Your task to perform on an android device: open sync settings in chrome Image 0: 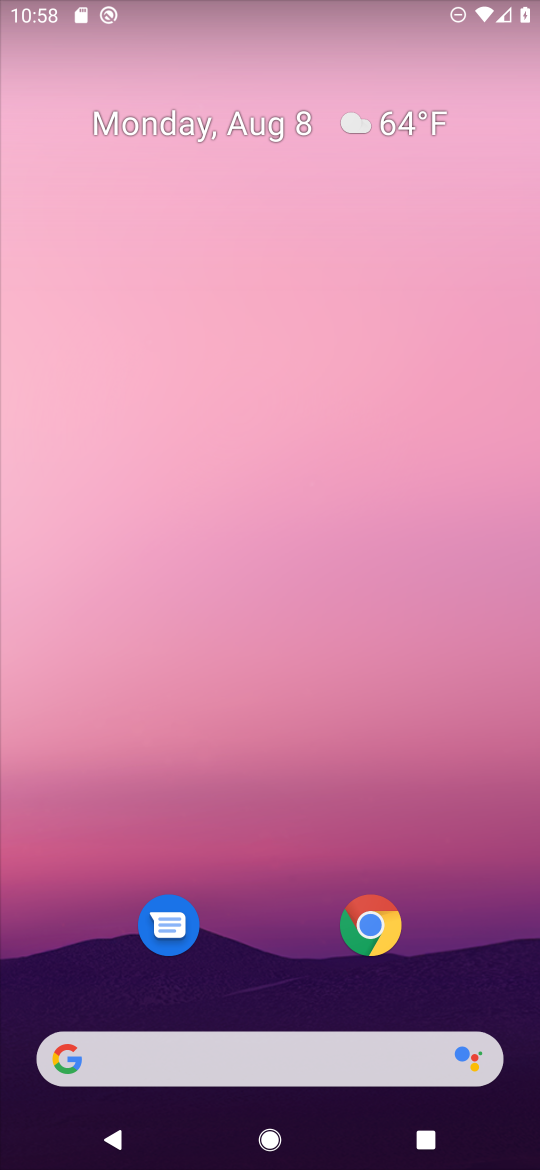
Step 0: drag from (260, 797) to (296, 144)
Your task to perform on an android device: open sync settings in chrome Image 1: 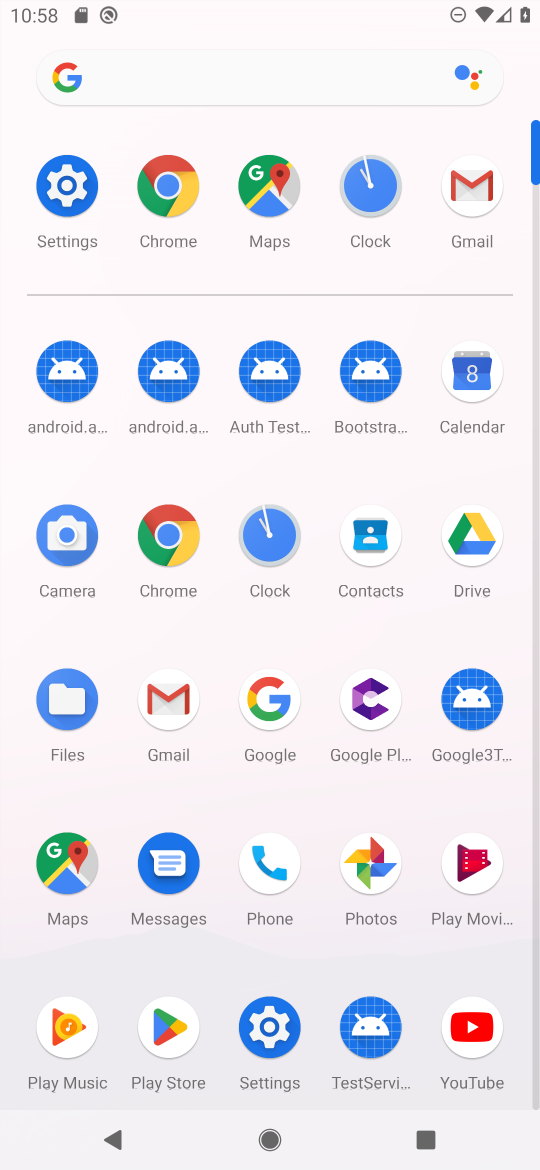
Step 1: click (164, 531)
Your task to perform on an android device: open sync settings in chrome Image 2: 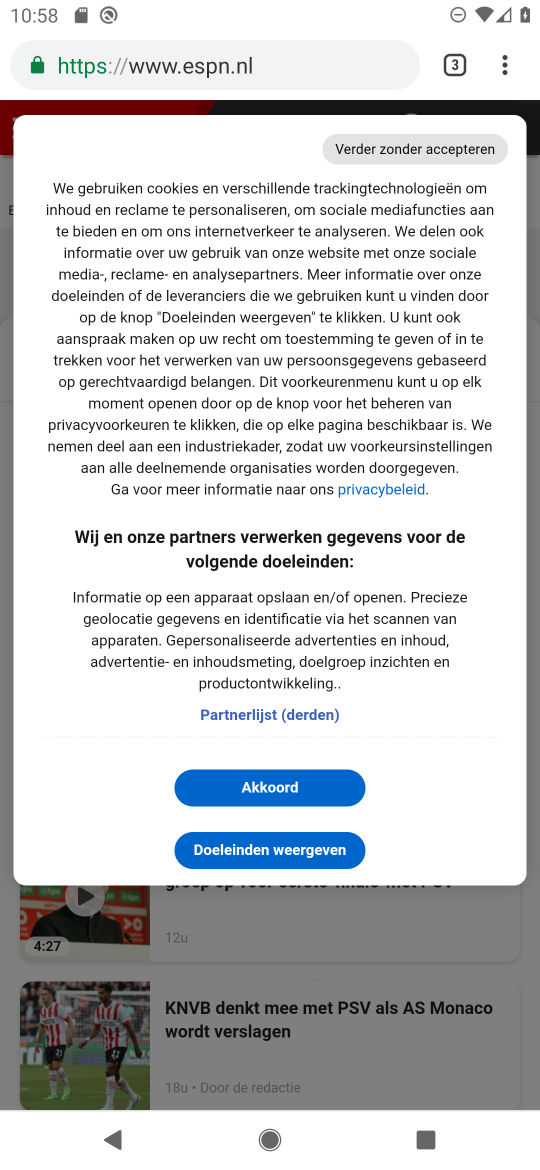
Step 2: drag from (521, 56) to (266, 865)
Your task to perform on an android device: open sync settings in chrome Image 3: 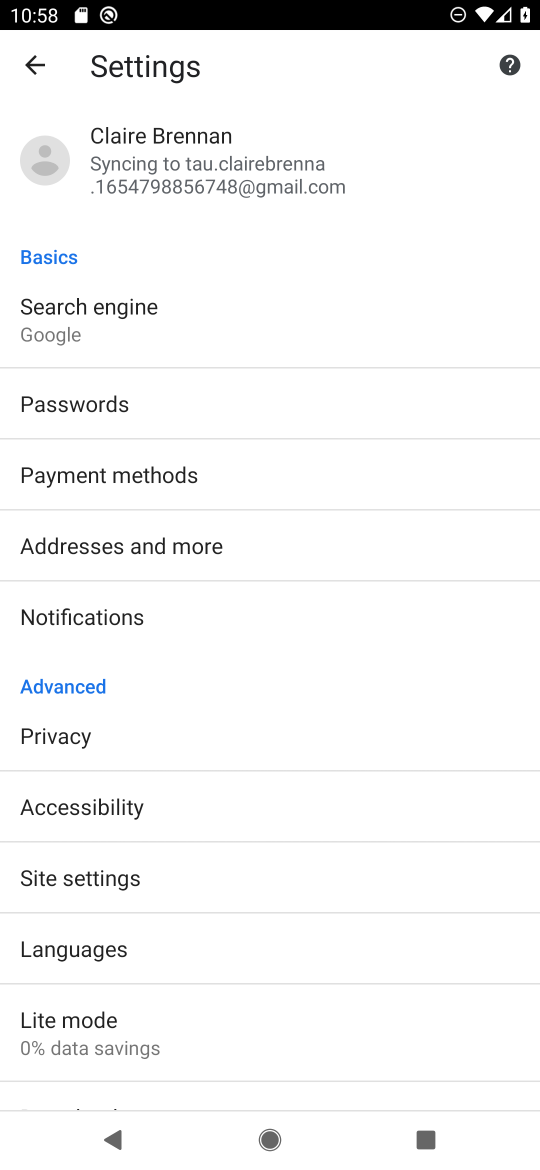
Step 3: click (193, 193)
Your task to perform on an android device: open sync settings in chrome Image 4: 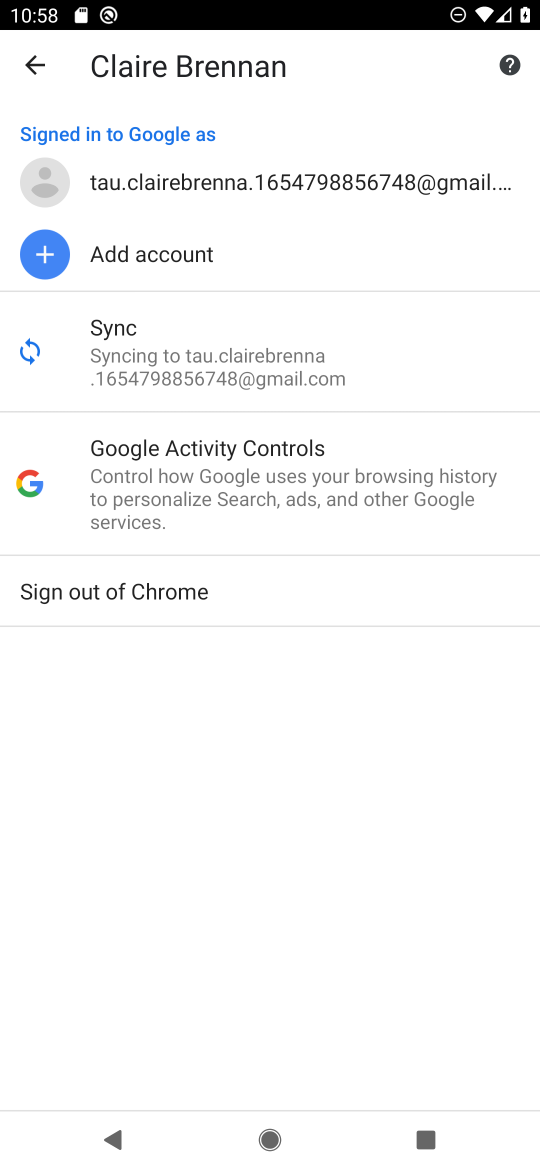
Step 4: click (176, 351)
Your task to perform on an android device: open sync settings in chrome Image 5: 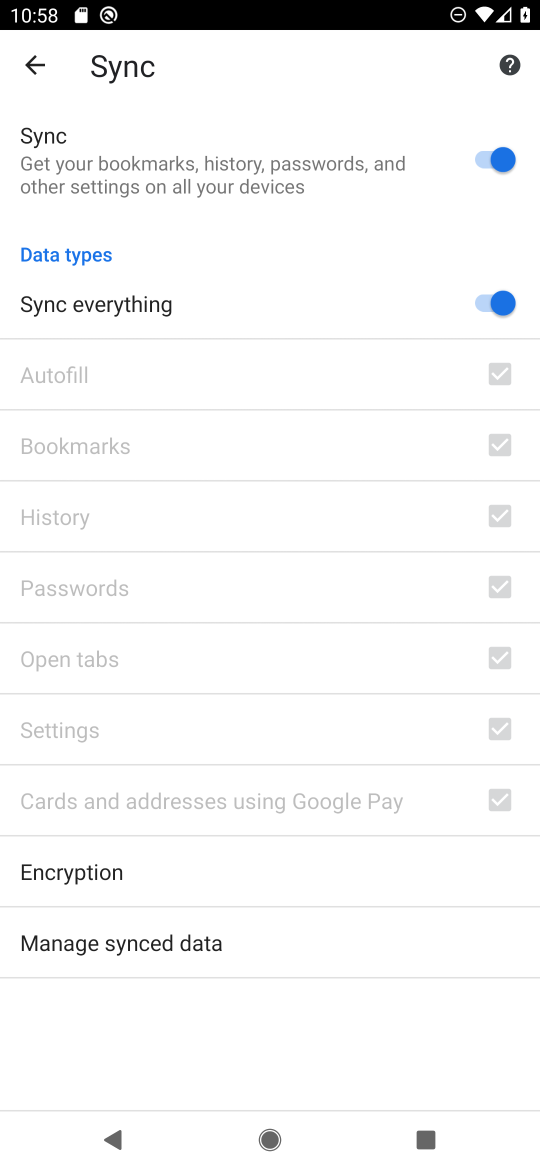
Step 5: task complete